Your task to perform on an android device: find which apps use the phone's location Image 0: 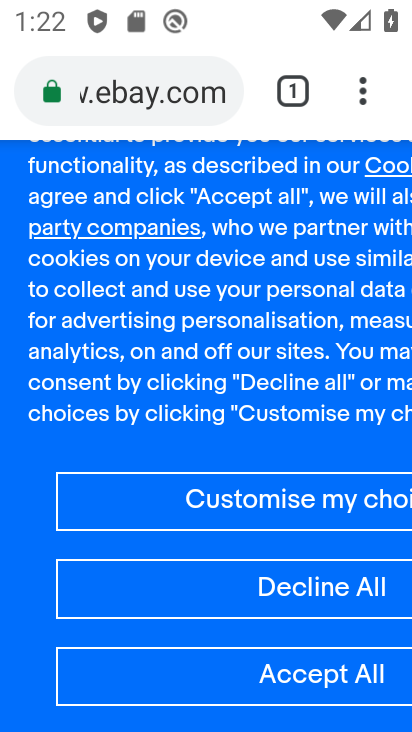
Step 0: press home button
Your task to perform on an android device: find which apps use the phone's location Image 1: 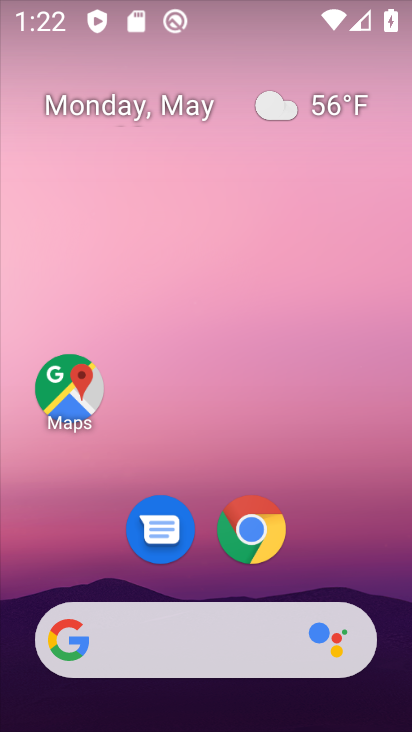
Step 1: drag from (309, 570) to (267, 47)
Your task to perform on an android device: find which apps use the phone's location Image 2: 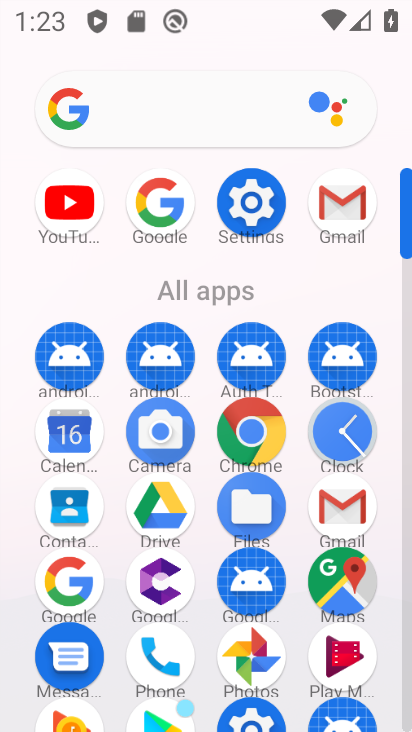
Step 2: click (254, 185)
Your task to perform on an android device: find which apps use the phone's location Image 3: 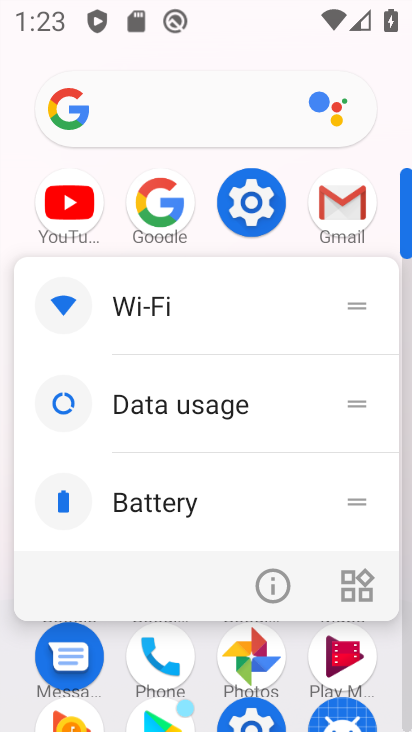
Step 3: click (242, 207)
Your task to perform on an android device: find which apps use the phone's location Image 4: 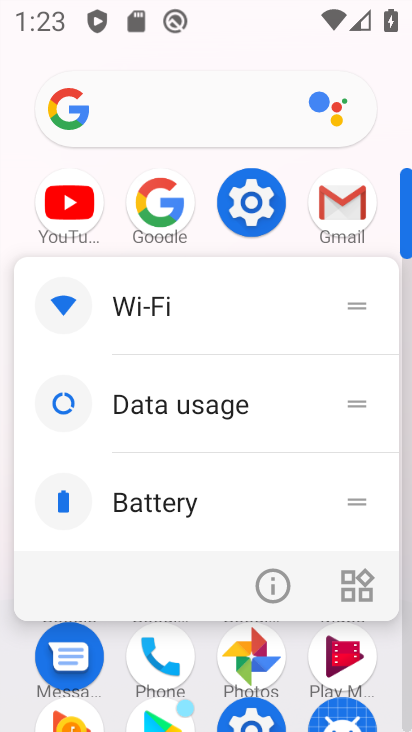
Step 4: click (243, 206)
Your task to perform on an android device: find which apps use the phone's location Image 5: 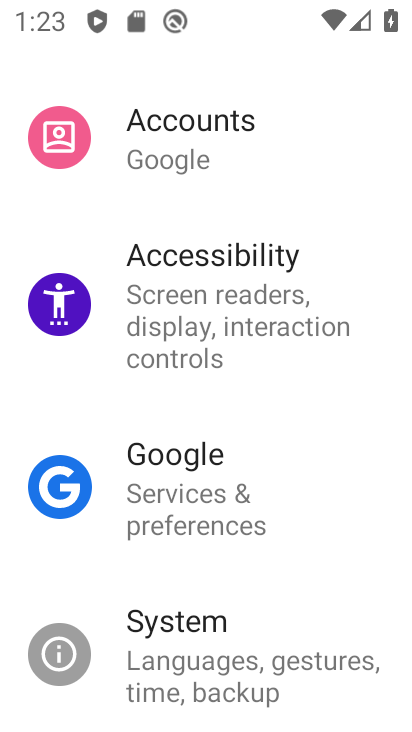
Step 5: drag from (207, 278) to (239, 541)
Your task to perform on an android device: find which apps use the phone's location Image 6: 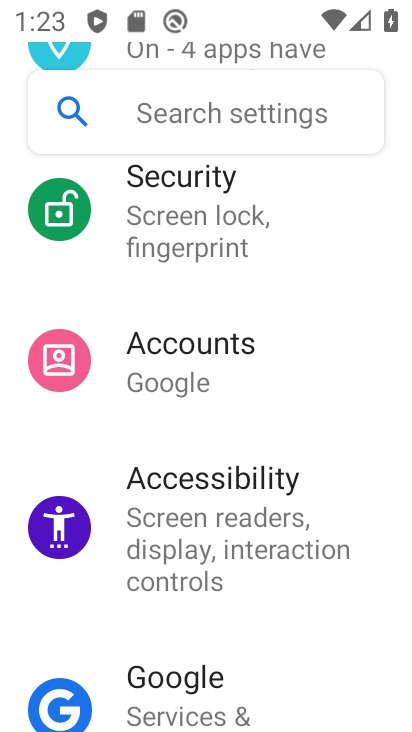
Step 6: drag from (210, 309) to (189, 608)
Your task to perform on an android device: find which apps use the phone's location Image 7: 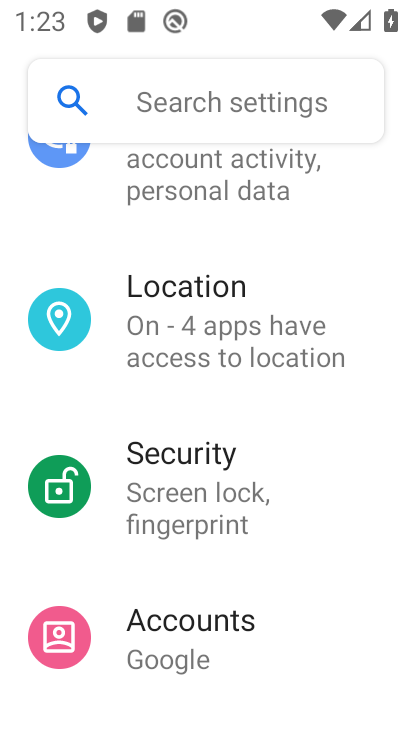
Step 7: drag from (166, 334) to (130, 594)
Your task to perform on an android device: find which apps use the phone's location Image 8: 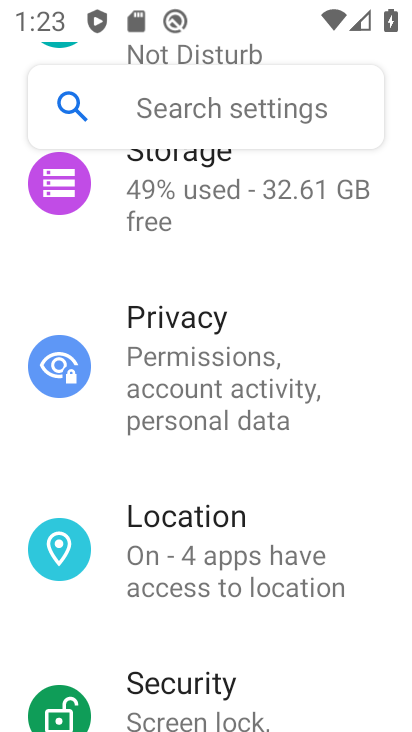
Step 8: drag from (171, 383) to (177, 627)
Your task to perform on an android device: find which apps use the phone's location Image 9: 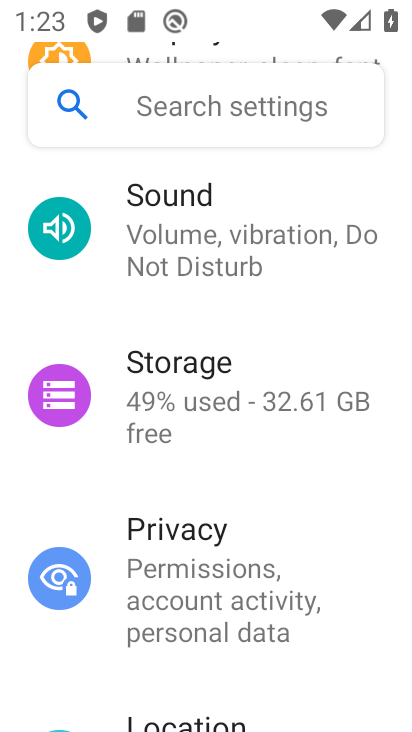
Step 9: click (189, 715)
Your task to perform on an android device: find which apps use the phone's location Image 10: 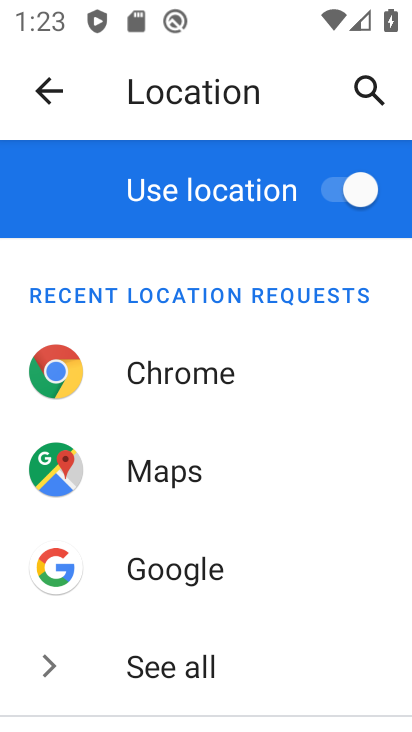
Step 10: drag from (147, 607) to (123, 260)
Your task to perform on an android device: find which apps use the phone's location Image 11: 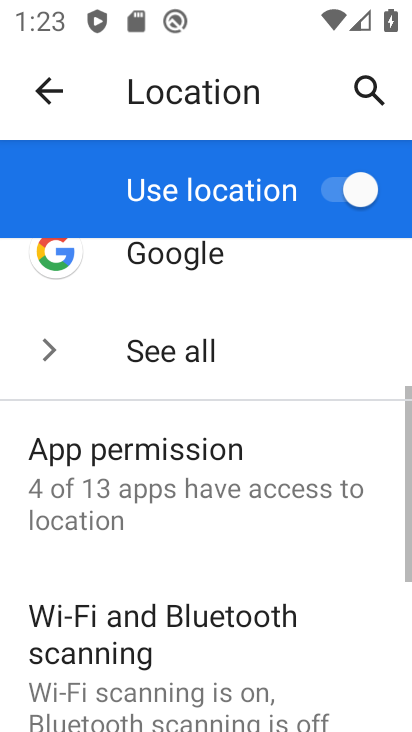
Step 11: drag from (206, 620) to (200, 526)
Your task to perform on an android device: find which apps use the phone's location Image 12: 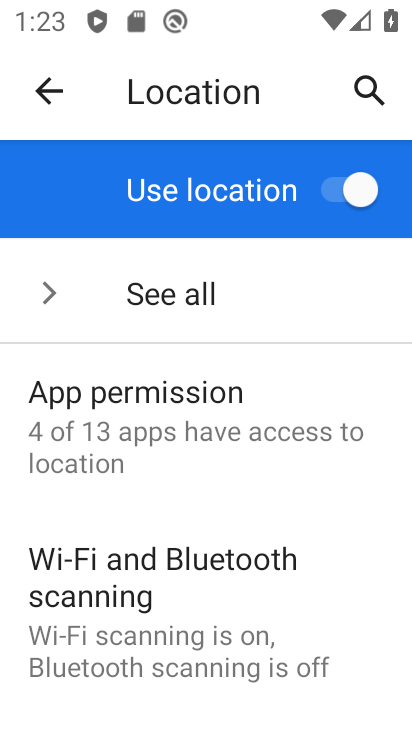
Step 12: click (206, 402)
Your task to perform on an android device: find which apps use the phone's location Image 13: 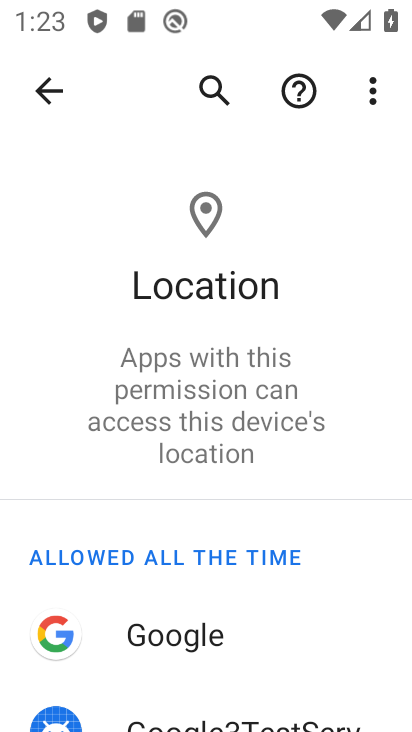
Step 13: task complete